Your task to perform on an android device: turn vacation reply on in the gmail app Image 0: 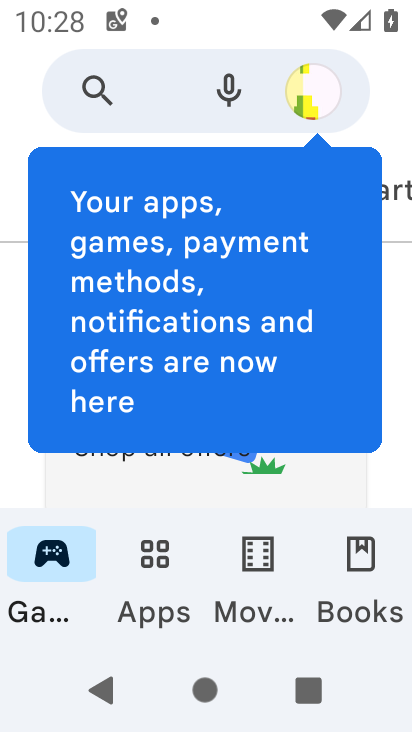
Step 0: press home button
Your task to perform on an android device: turn vacation reply on in the gmail app Image 1: 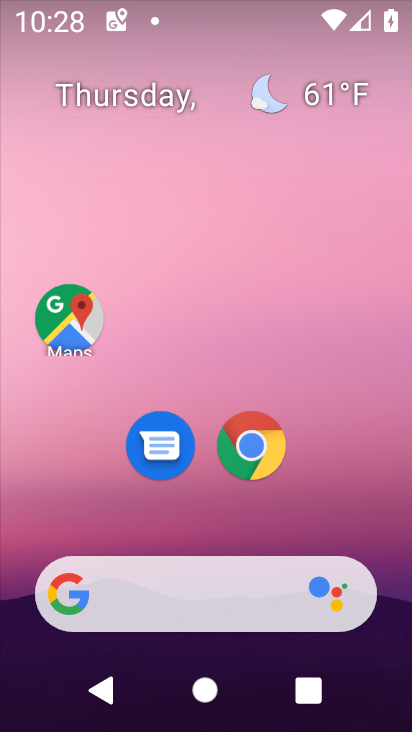
Step 1: drag from (212, 506) to (161, 62)
Your task to perform on an android device: turn vacation reply on in the gmail app Image 2: 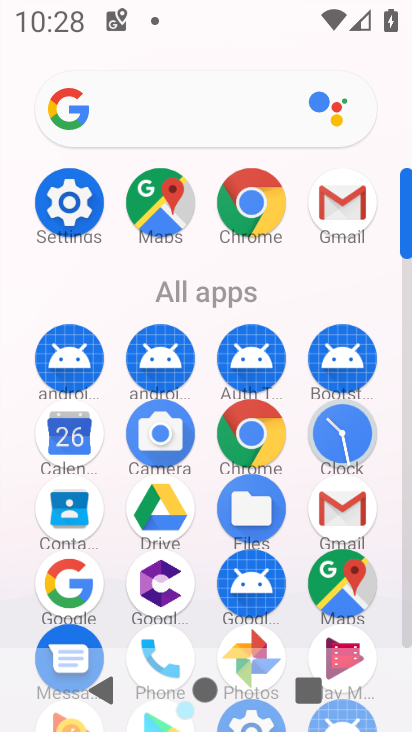
Step 2: click (339, 212)
Your task to perform on an android device: turn vacation reply on in the gmail app Image 3: 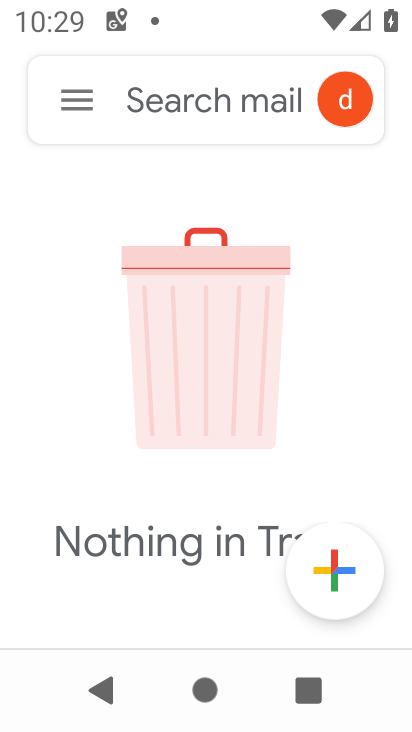
Step 3: click (68, 98)
Your task to perform on an android device: turn vacation reply on in the gmail app Image 4: 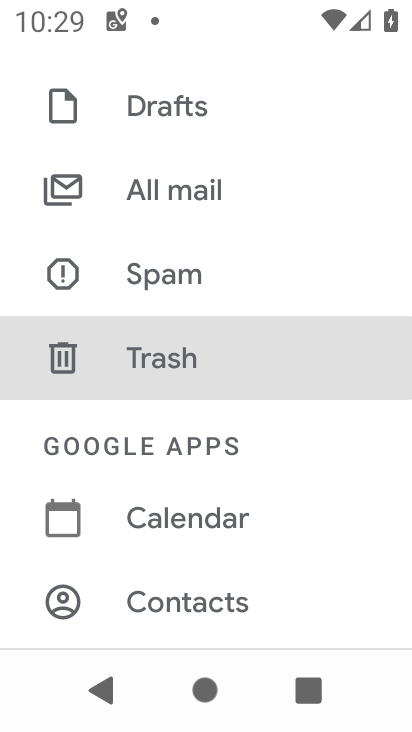
Step 4: drag from (113, 571) to (102, 30)
Your task to perform on an android device: turn vacation reply on in the gmail app Image 5: 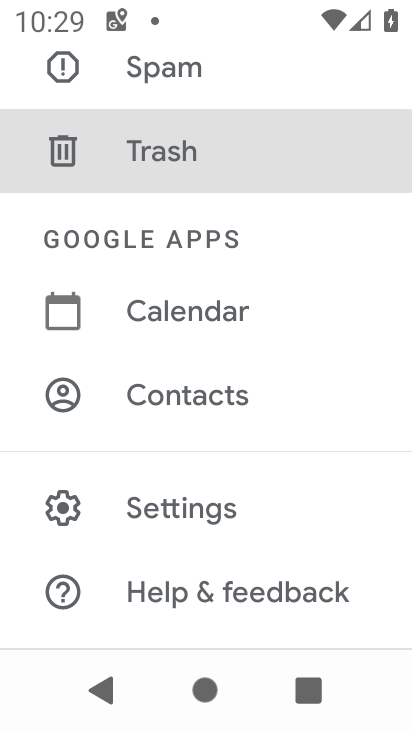
Step 5: click (114, 497)
Your task to perform on an android device: turn vacation reply on in the gmail app Image 6: 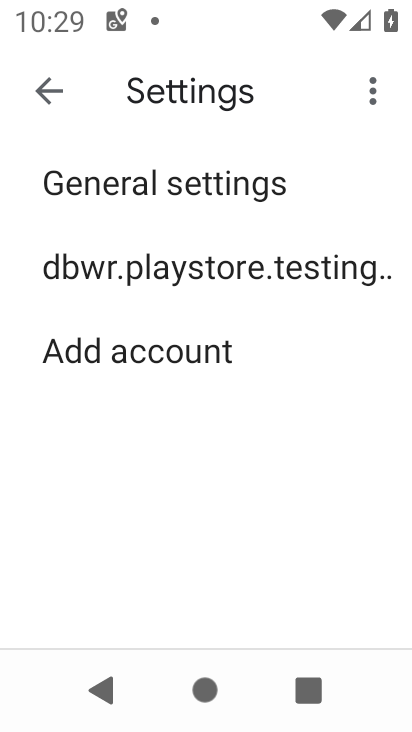
Step 6: click (183, 272)
Your task to perform on an android device: turn vacation reply on in the gmail app Image 7: 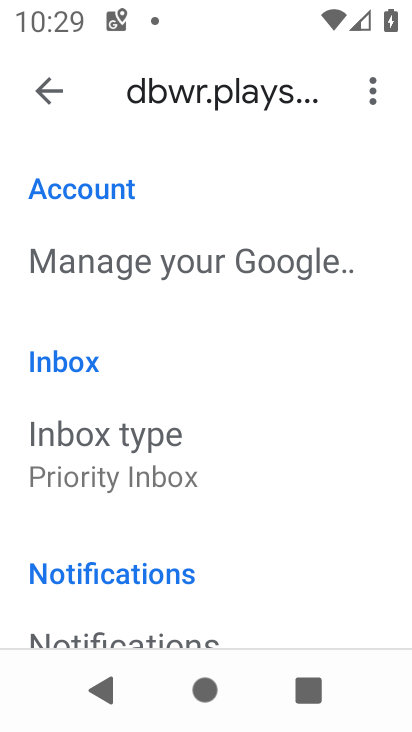
Step 7: drag from (206, 617) to (287, 139)
Your task to perform on an android device: turn vacation reply on in the gmail app Image 8: 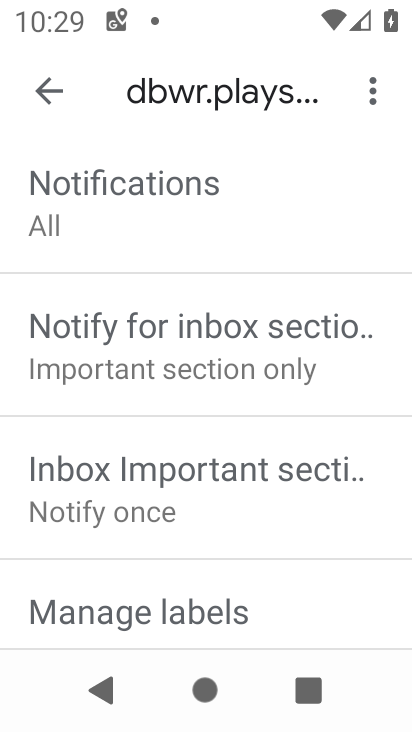
Step 8: drag from (177, 606) to (162, 68)
Your task to perform on an android device: turn vacation reply on in the gmail app Image 9: 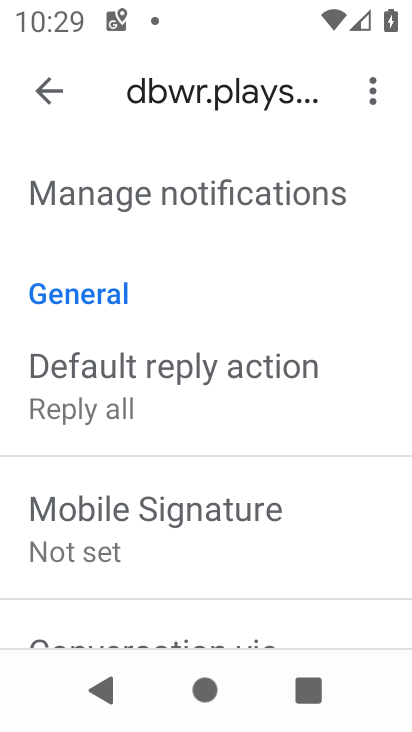
Step 9: drag from (85, 529) to (76, 10)
Your task to perform on an android device: turn vacation reply on in the gmail app Image 10: 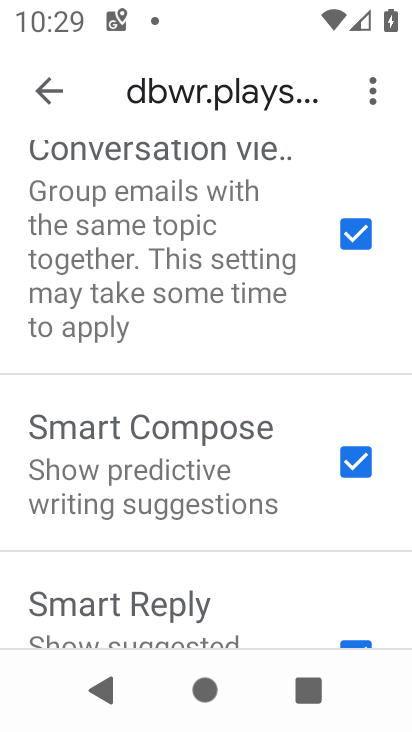
Step 10: drag from (149, 572) to (121, 116)
Your task to perform on an android device: turn vacation reply on in the gmail app Image 11: 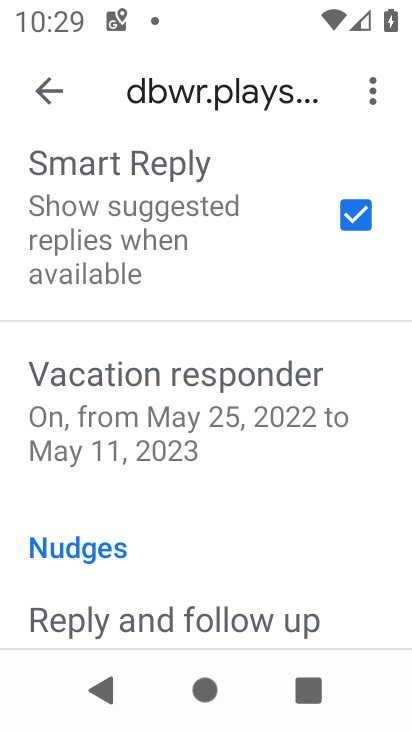
Step 11: click (97, 374)
Your task to perform on an android device: turn vacation reply on in the gmail app Image 12: 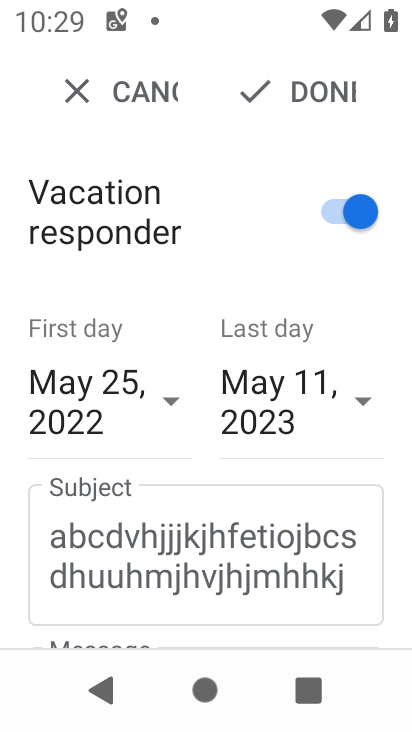
Step 12: click (302, 72)
Your task to perform on an android device: turn vacation reply on in the gmail app Image 13: 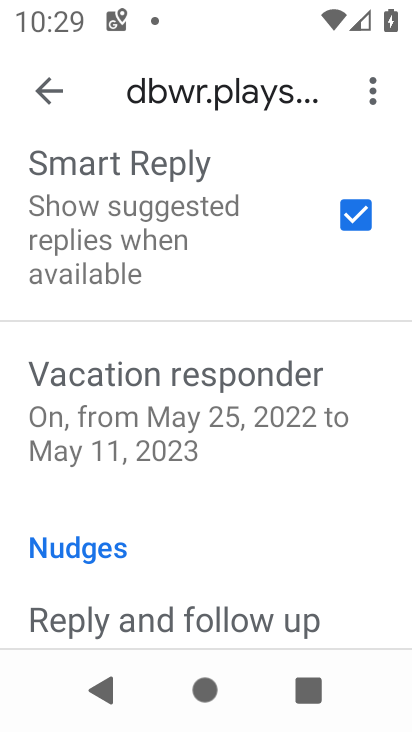
Step 13: task complete